Your task to perform on an android device: turn off location history Image 0: 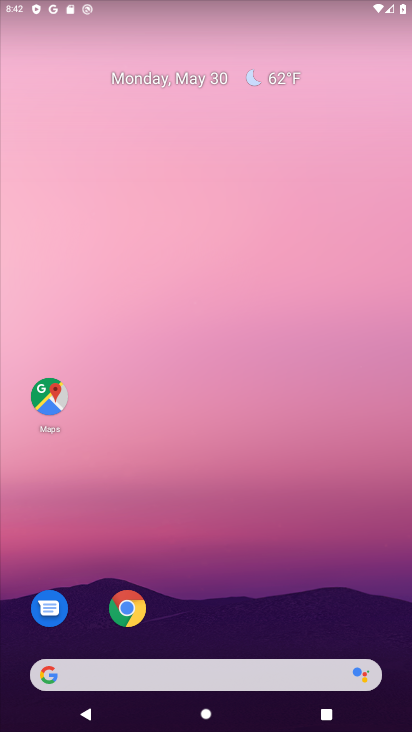
Step 0: drag from (203, 580) to (249, 68)
Your task to perform on an android device: turn off location history Image 1: 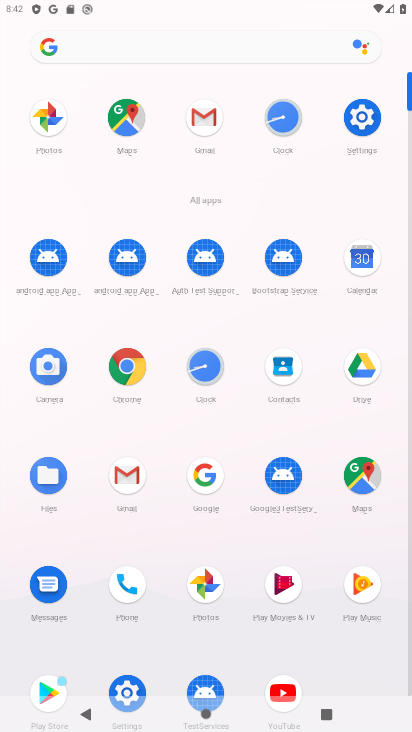
Step 1: click (124, 683)
Your task to perform on an android device: turn off location history Image 2: 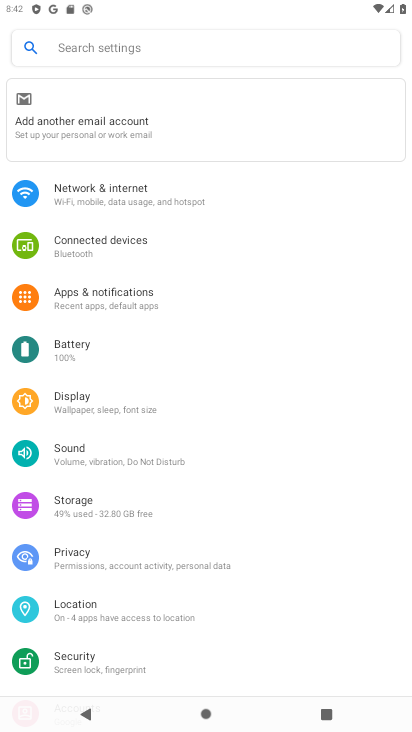
Step 2: drag from (135, 614) to (210, 281)
Your task to perform on an android device: turn off location history Image 3: 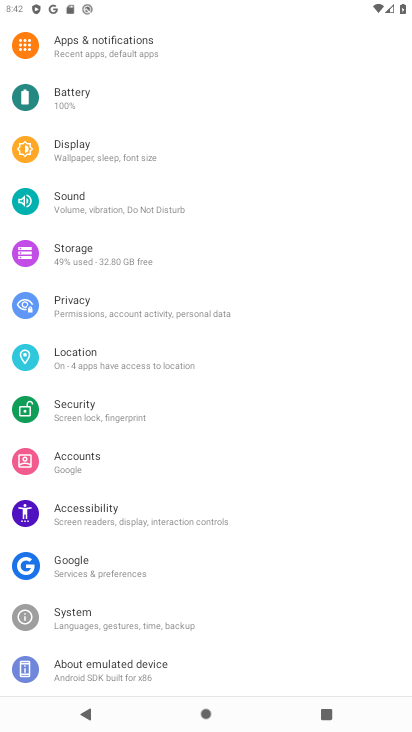
Step 3: click (101, 369)
Your task to perform on an android device: turn off location history Image 4: 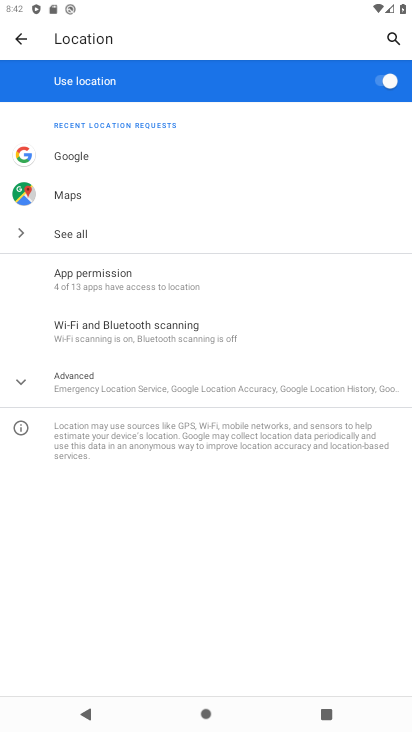
Step 4: click (163, 388)
Your task to perform on an android device: turn off location history Image 5: 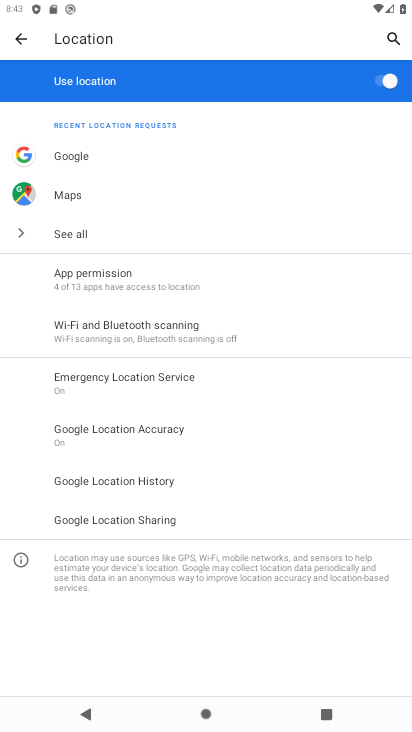
Step 5: click (178, 483)
Your task to perform on an android device: turn off location history Image 6: 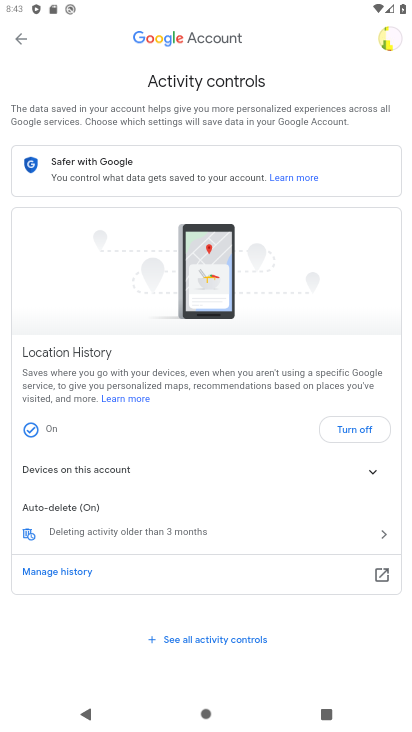
Step 6: click (360, 433)
Your task to perform on an android device: turn off location history Image 7: 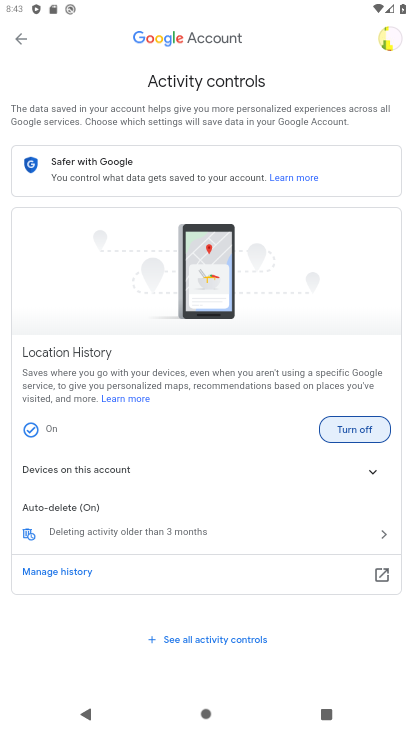
Step 7: click (366, 435)
Your task to perform on an android device: turn off location history Image 8: 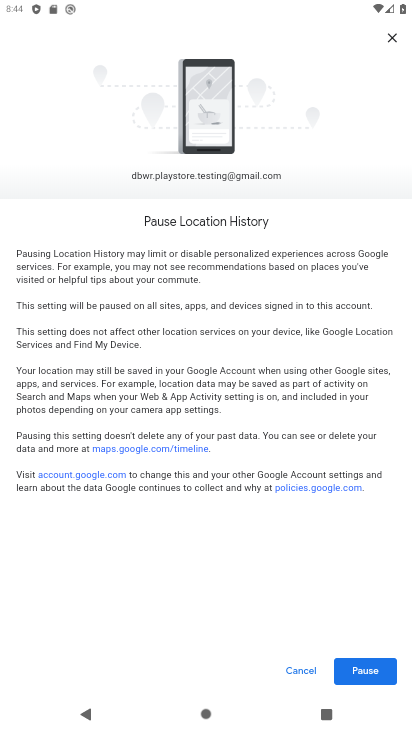
Step 8: click (370, 677)
Your task to perform on an android device: turn off location history Image 9: 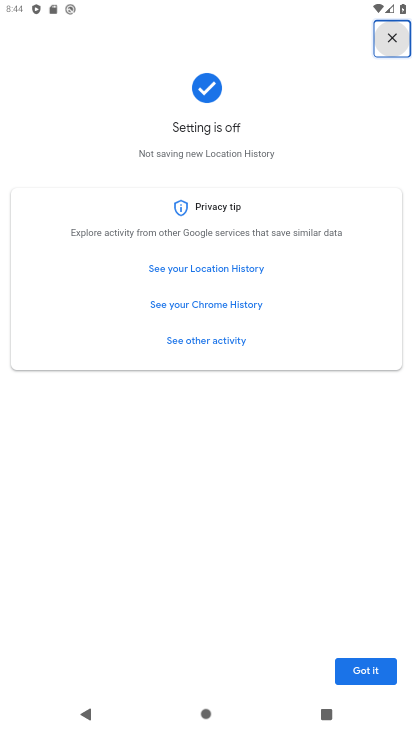
Step 9: click (379, 669)
Your task to perform on an android device: turn off location history Image 10: 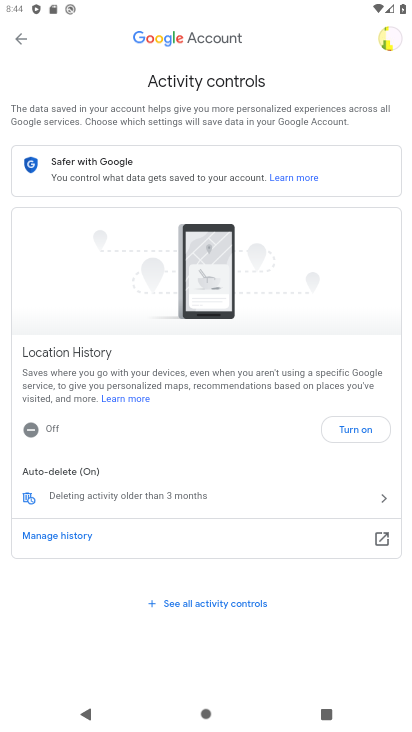
Step 10: task complete